Your task to perform on an android device: When is my next appointment? Image 0: 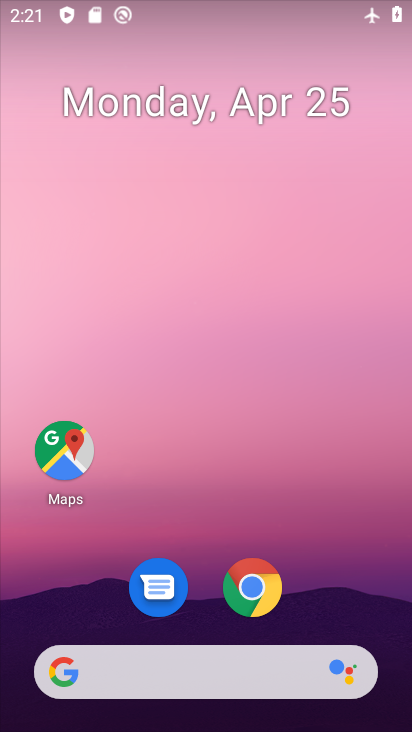
Step 0: drag from (329, 531) to (287, 138)
Your task to perform on an android device: When is my next appointment? Image 1: 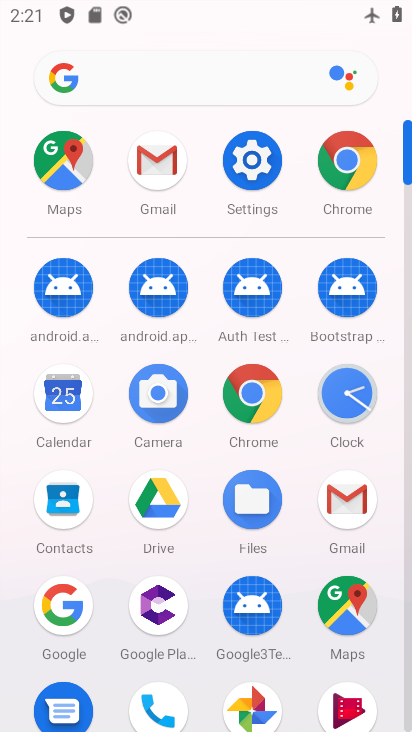
Step 1: click (42, 386)
Your task to perform on an android device: When is my next appointment? Image 2: 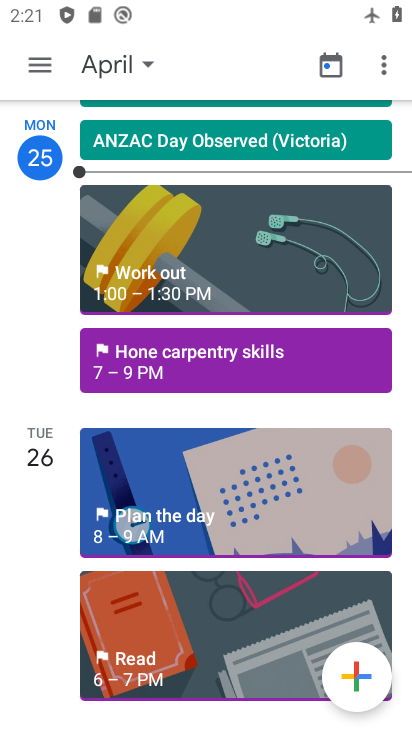
Step 2: task complete